Your task to perform on an android device: open a new tab in the chrome app Image 0: 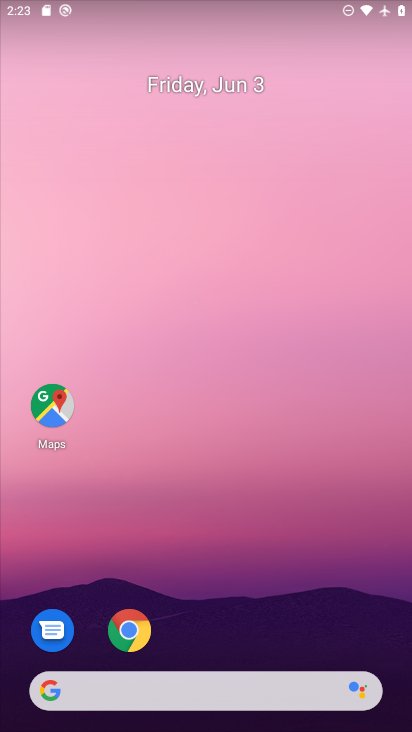
Step 0: click (127, 627)
Your task to perform on an android device: open a new tab in the chrome app Image 1: 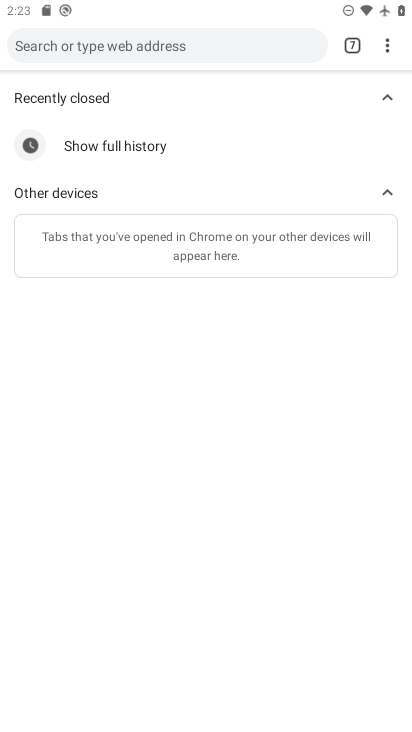
Step 1: click (386, 49)
Your task to perform on an android device: open a new tab in the chrome app Image 2: 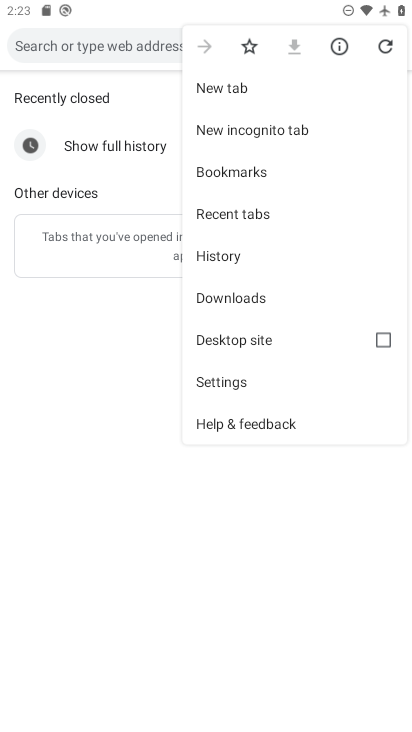
Step 2: click (220, 88)
Your task to perform on an android device: open a new tab in the chrome app Image 3: 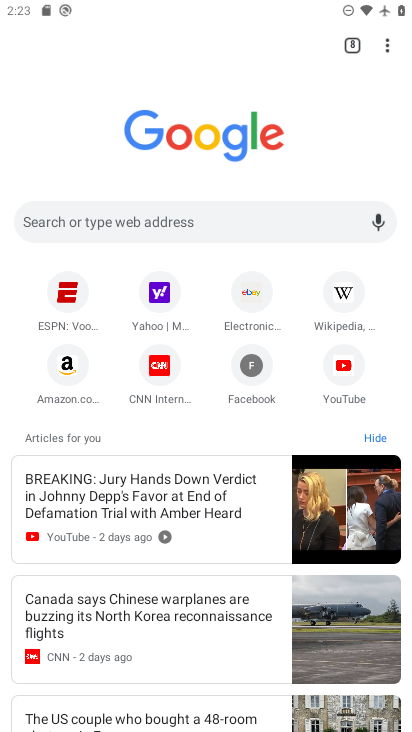
Step 3: task complete